Your task to perform on an android device: open app "Venmo" (install if not already installed) Image 0: 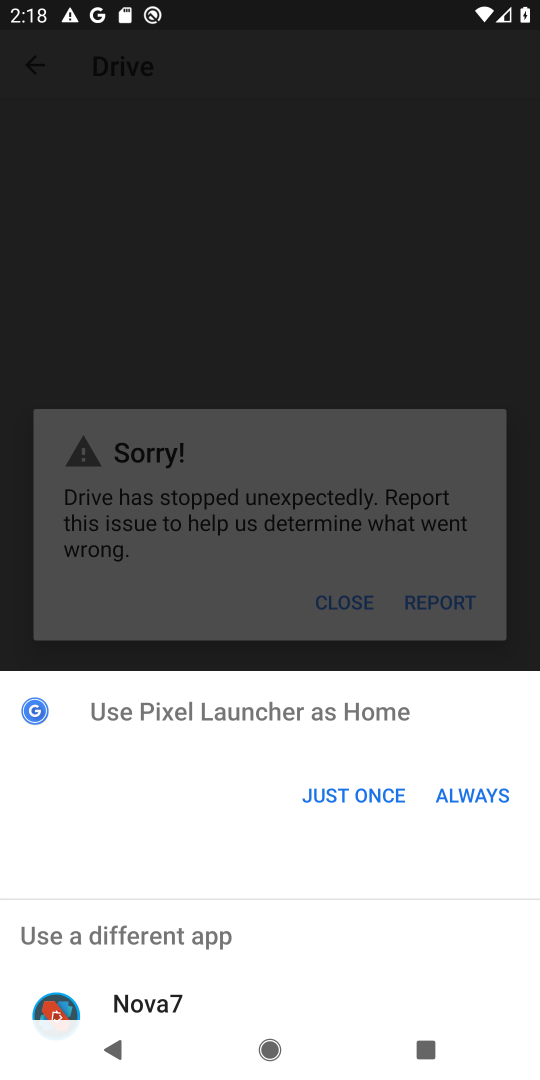
Step 0: press home button
Your task to perform on an android device: open app "Venmo" (install if not already installed) Image 1: 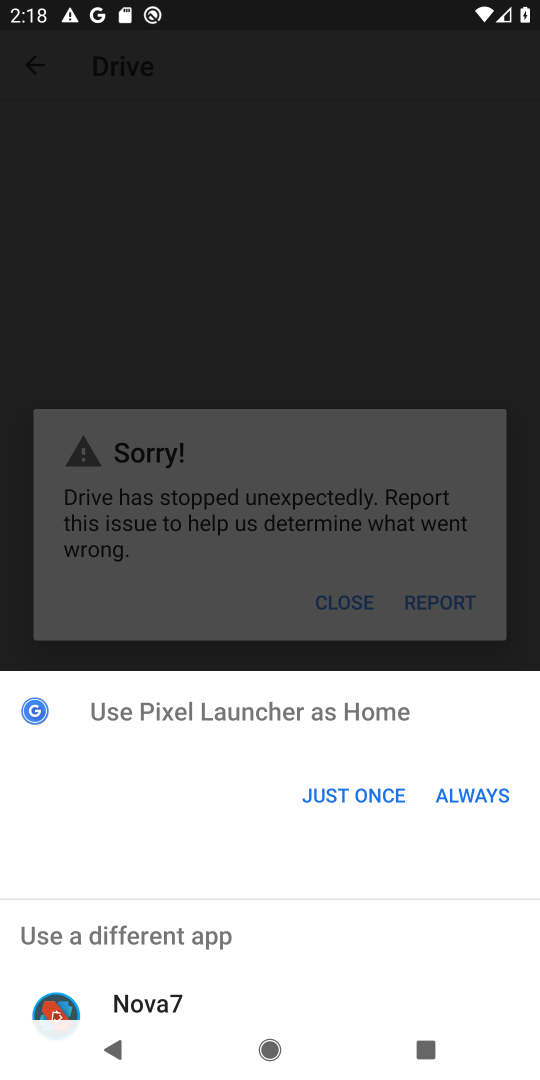
Step 1: click (334, 780)
Your task to perform on an android device: open app "Venmo" (install if not already installed) Image 2: 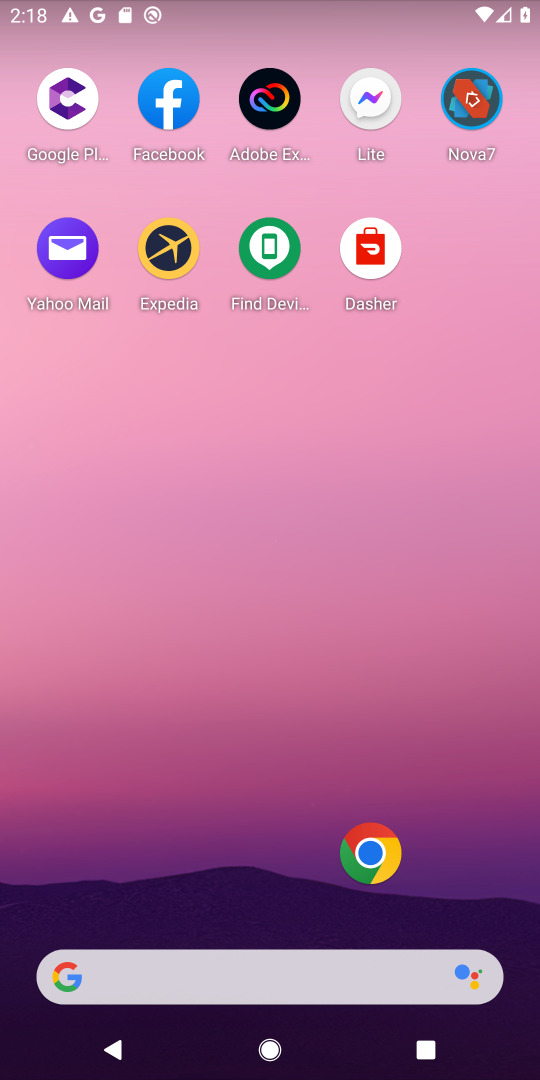
Step 2: drag from (524, 941) to (457, 138)
Your task to perform on an android device: open app "Venmo" (install if not already installed) Image 3: 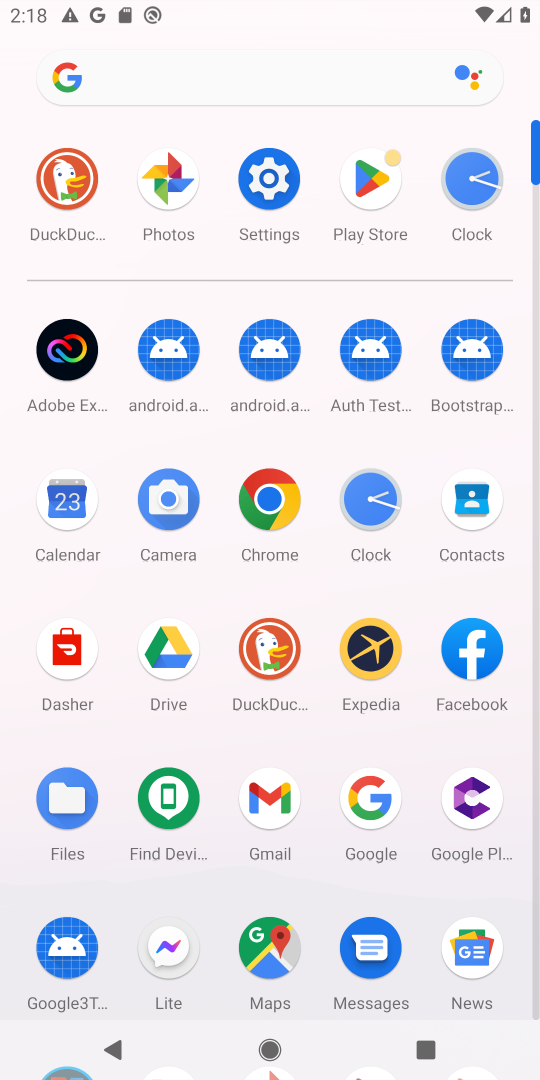
Step 3: click (536, 997)
Your task to perform on an android device: open app "Venmo" (install if not already installed) Image 4: 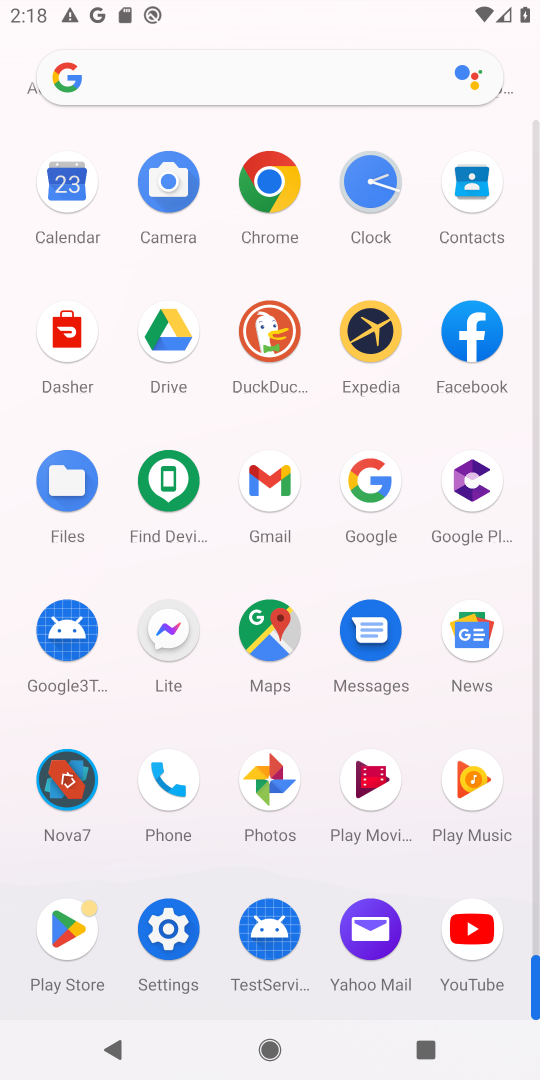
Step 4: click (67, 927)
Your task to perform on an android device: open app "Venmo" (install if not already installed) Image 5: 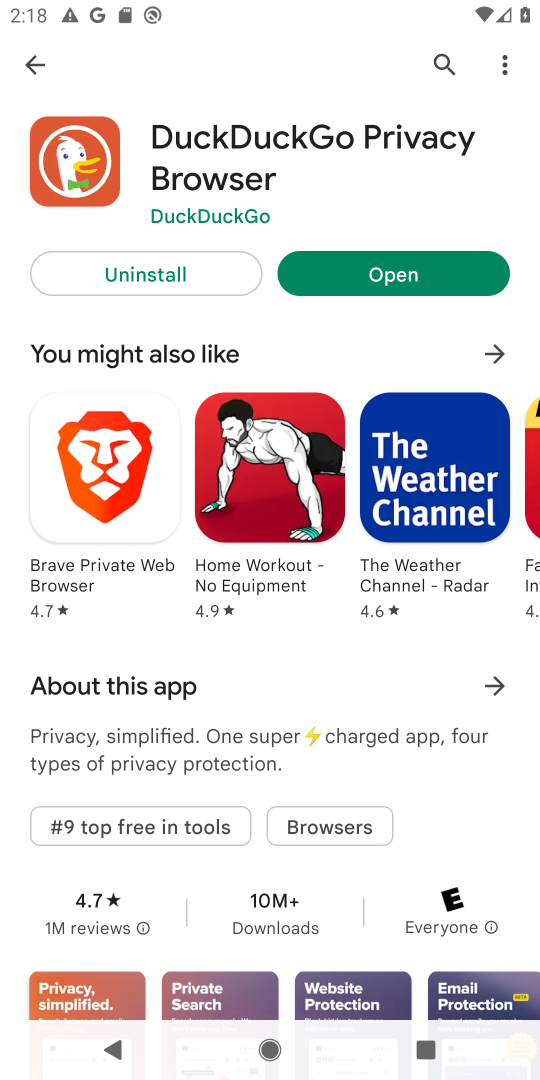
Step 5: click (437, 55)
Your task to perform on an android device: open app "Venmo" (install if not already installed) Image 6: 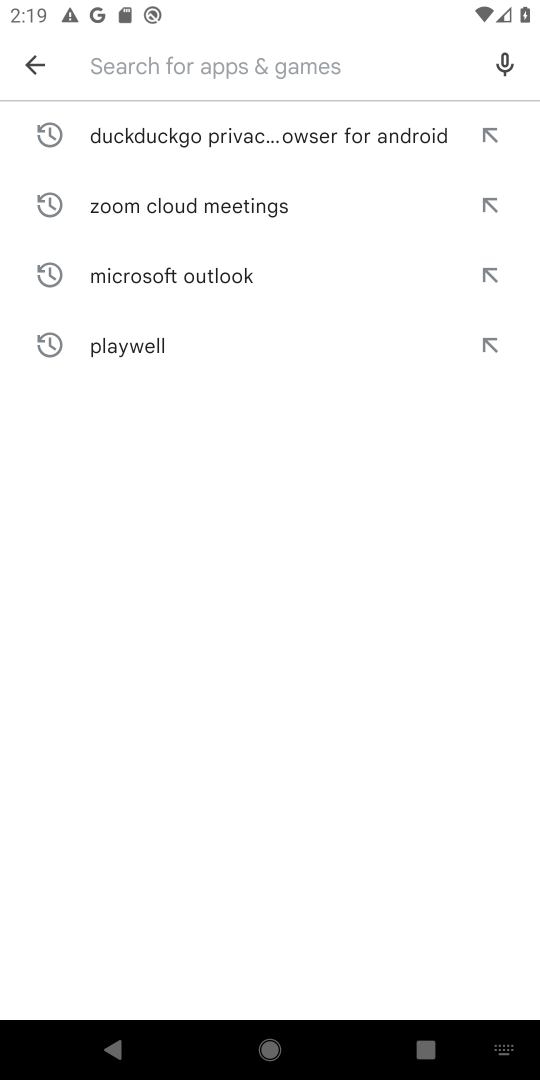
Step 6: type "Venmo"
Your task to perform on an android device: open app "Venmo" (install if not already installed) Image 7: 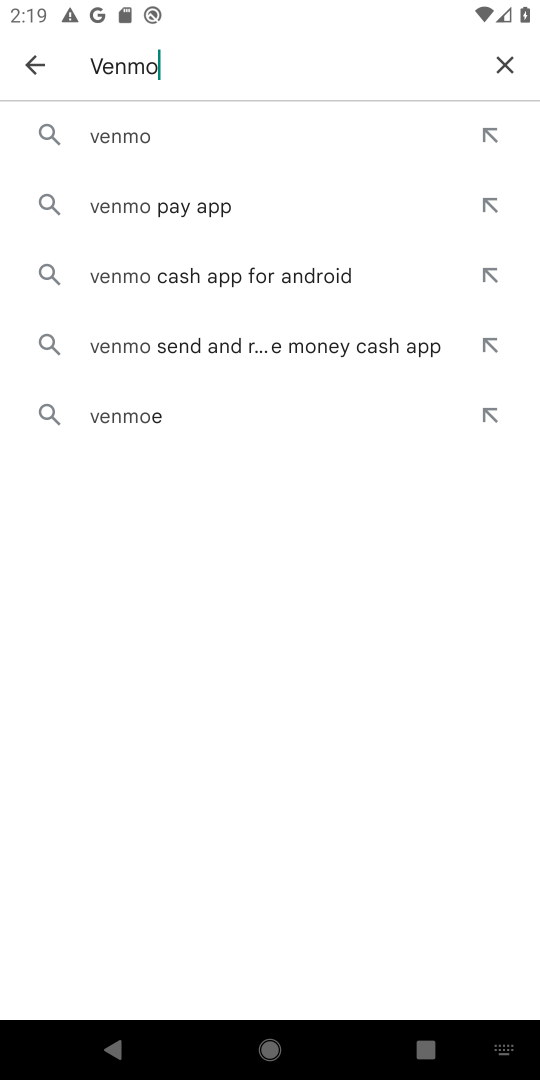
Step 7: click (101, 128)
Your task to perform on an android device: open app "Venmo" (install if not already installed) Image 8: 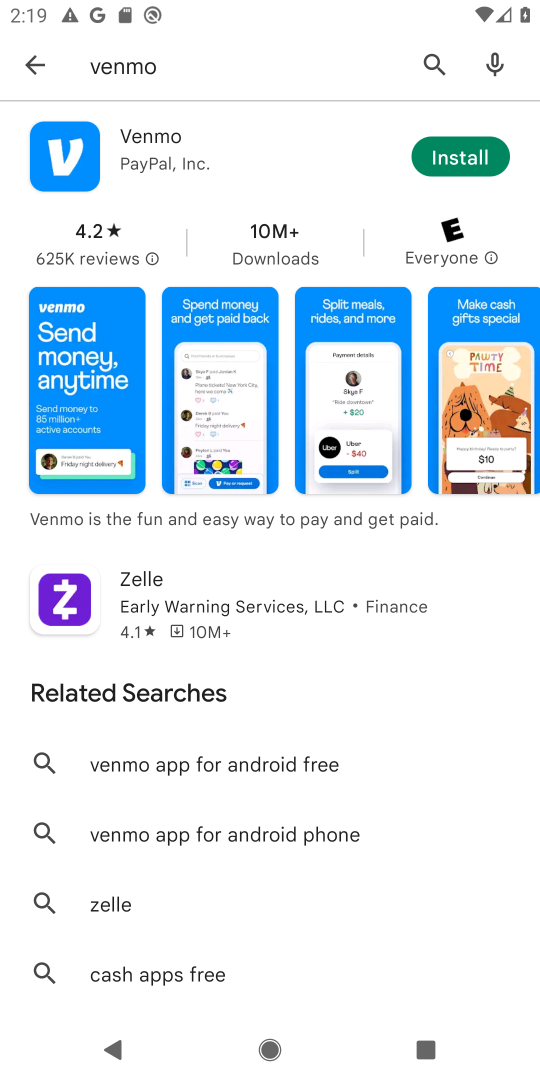
Step 8: click (454, 159)
Your task to perform on an android device: open app "Venmo" (install if not already installed) Image 9: 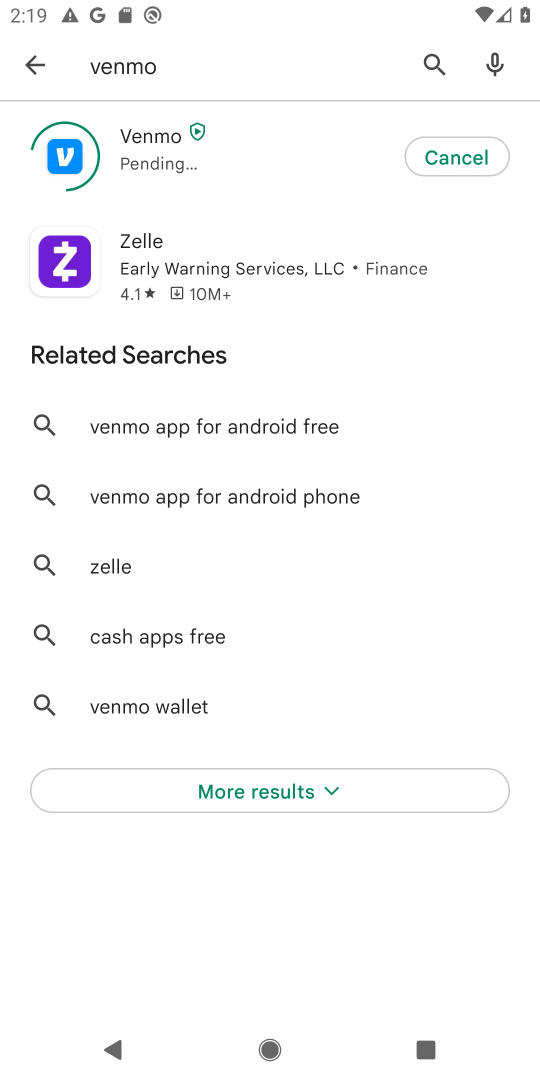
Step 9: click (143, 142)
Your task to perform on an android device: open app "Venmo" (install if not already installed) Image 10: 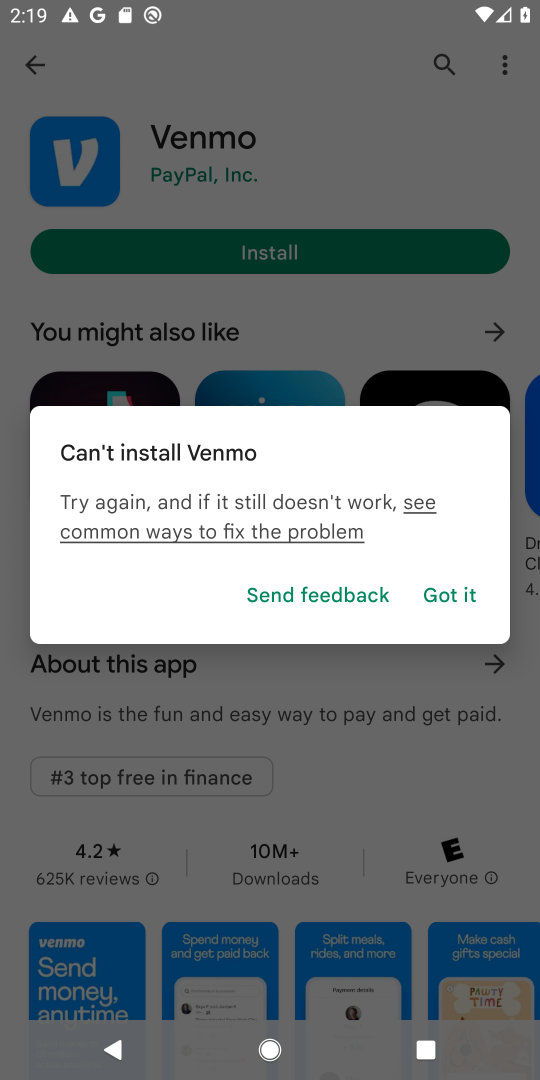
Step 10: click (456, 597)
Your task to perform on an android device: open app "Venmo" (install if not already installed) Image 11: 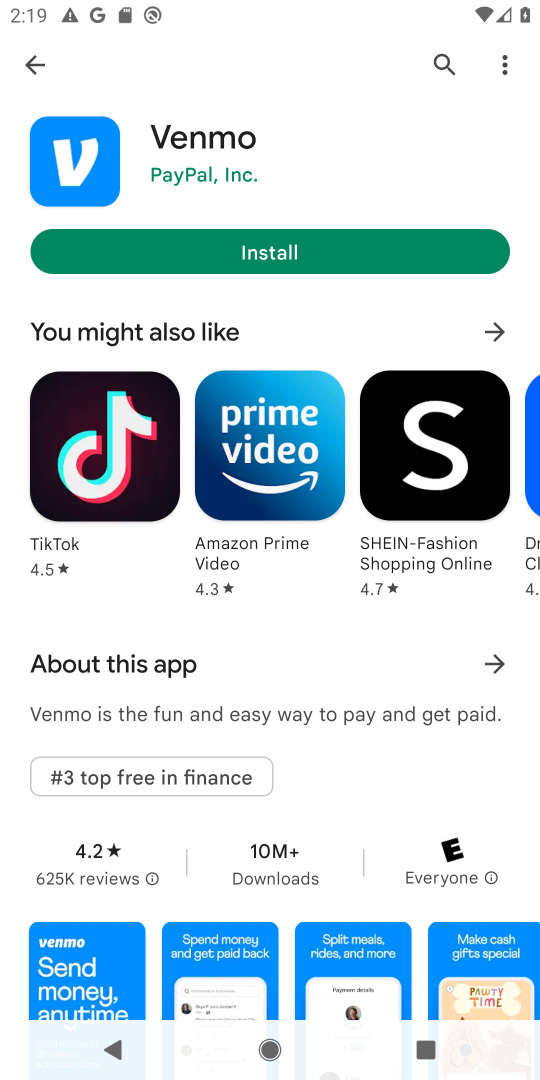
Step 11: click (268, 253)
Your task to perform on an android device: open app "Venmo" (install if not already installed) Image 12: 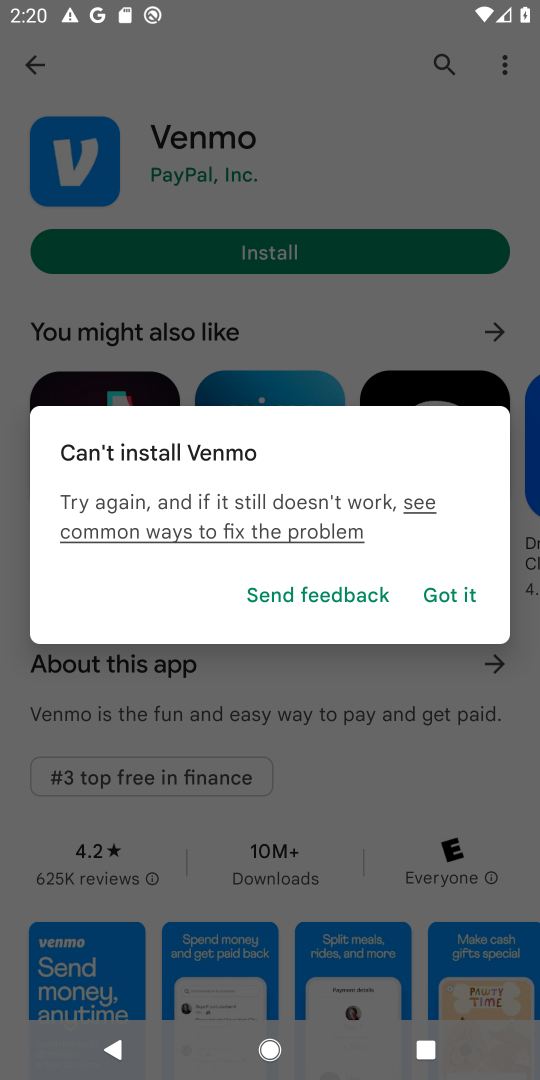
Step 12: click (459, 591)
Your task to perform on an android device: open app "Venmo" (install if not already installed) Image 13: 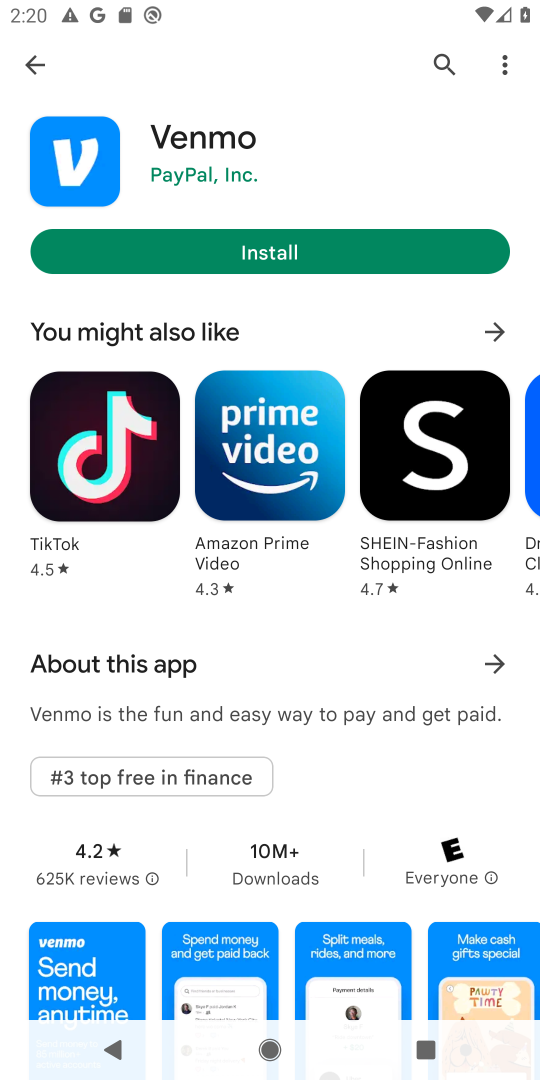
Step 13: task complete